Your task to perform on an android device: Go to network settings Image 0: 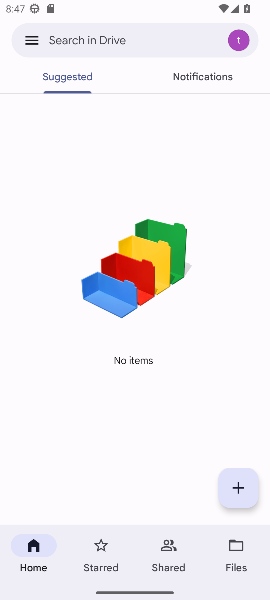
Step 0: press home button
Your task to perform on an android device: Go to network settings Image 1: 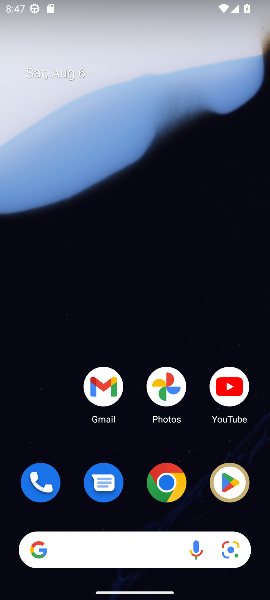
Step 1: drag from (12, 549) to (126, 90)
Your task to perform on an android device: Go to network settings Image 2: 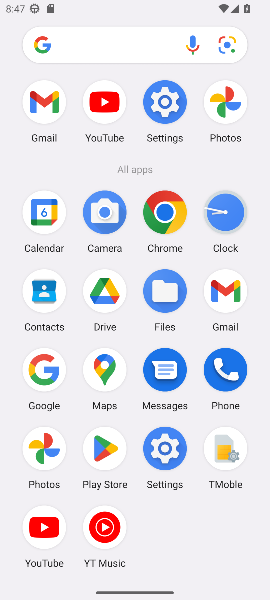
Step 2: click (163, 435)
Your task to perform on an android device: Go to network settings Image 3: 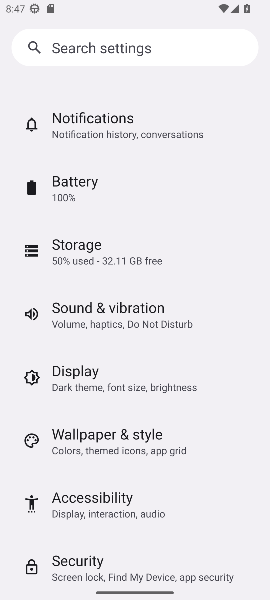
Step 3: click (106, 133)
Your task to perform on an android device: Go to network settings Image 4: 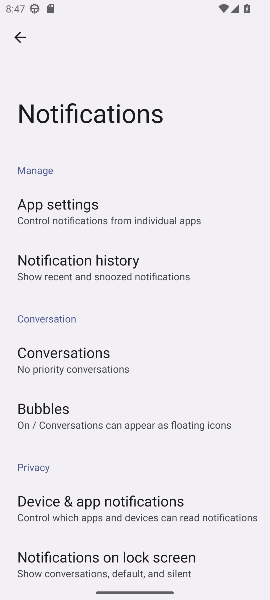
Step 4: task complete